Your task to perform on an android device: Open the web browser Image 0: 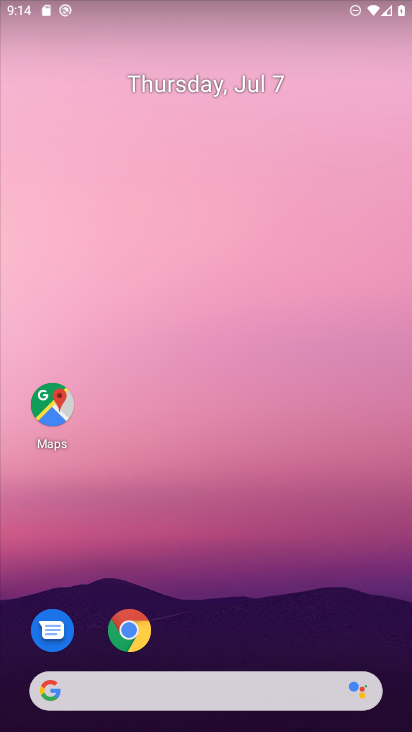
Step 0: drag from (213, 658) to (215, 87)
Your task to perform on an android device: Open the web browser Image 1: 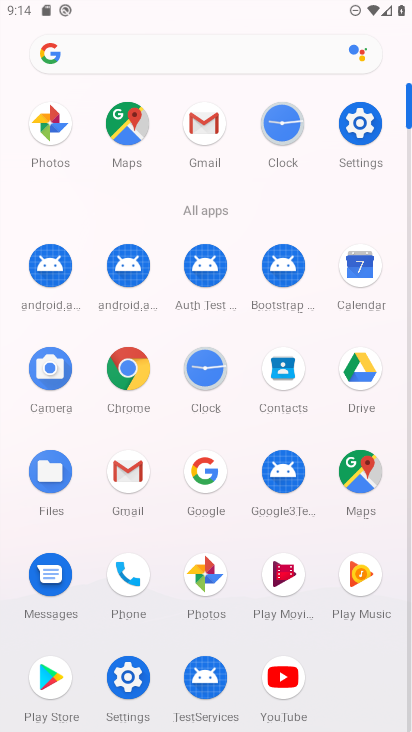
Step 1: click (179, 452)
Your task to perform on an android device: Open the web browser Image 2: 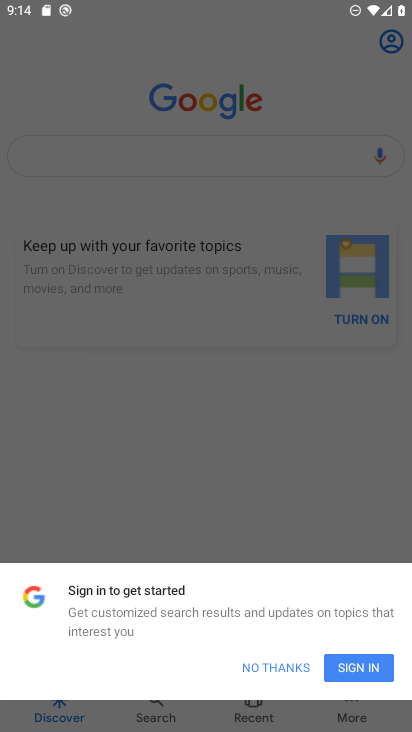
Step 2: click (275, 663)
Your task to perform on an android device: Open the web browser Image 3: 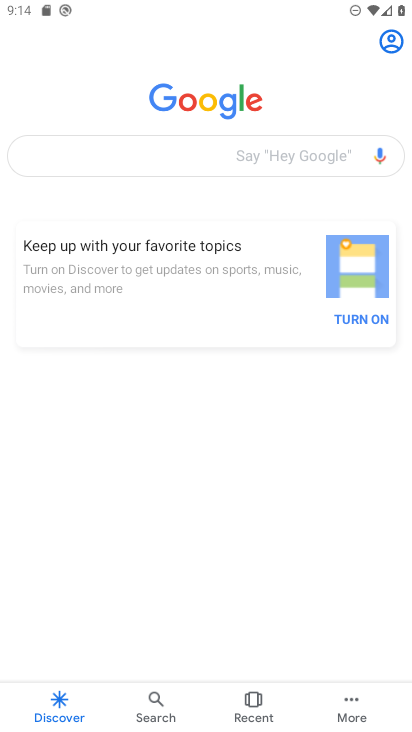
Step 3: task complete